Your task to perform on an android device: turn on the 24-hour format for clock Image 0: 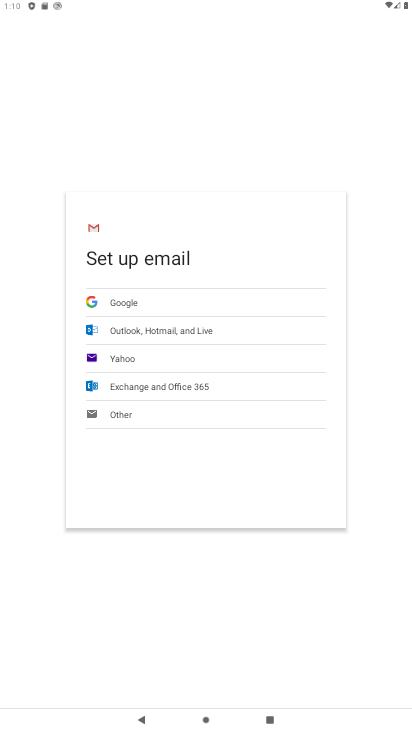
Step 0: press home button
Your task to perform on an android device: turn on the 24-hour format for clock Image 1: 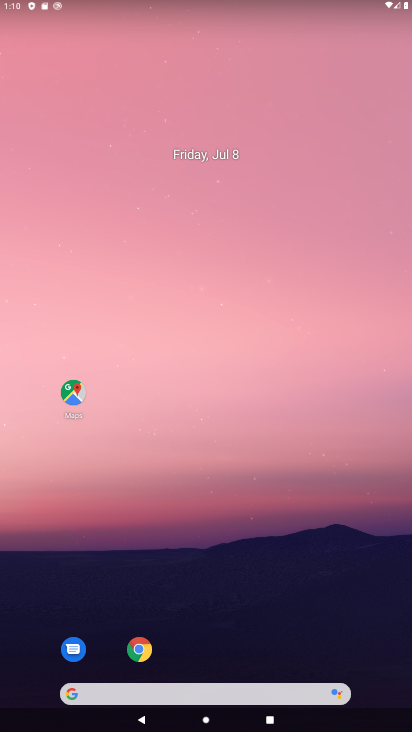
Step 1: drag from (301, 619) to (163, 106)
Your task to perform on an android device: turn on the 24-hour format for clock Image 2: 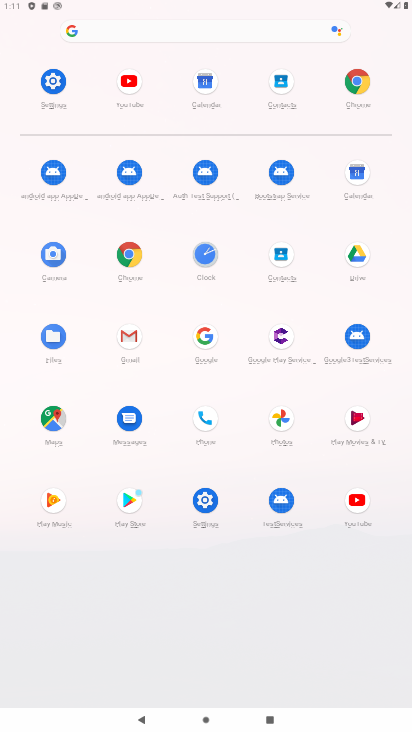
Step 2: click (205, 252)
Your task to perform on an android device: turn on the 24-hour format for clock Image 3: 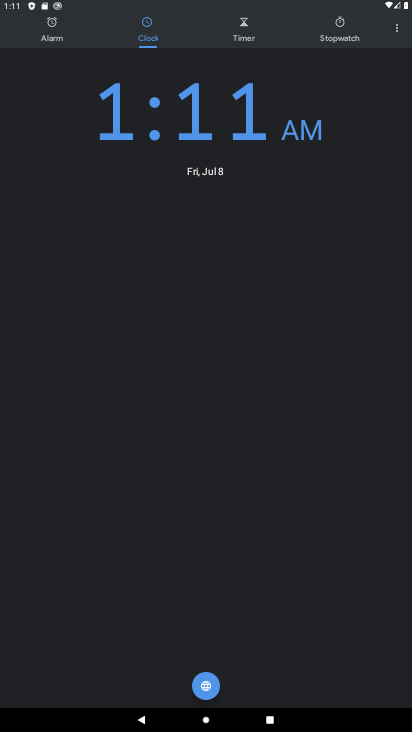
Step 3: click (401, 29)
Your task to perform on an android device: turn on the 24-hour format for clock Image 4: 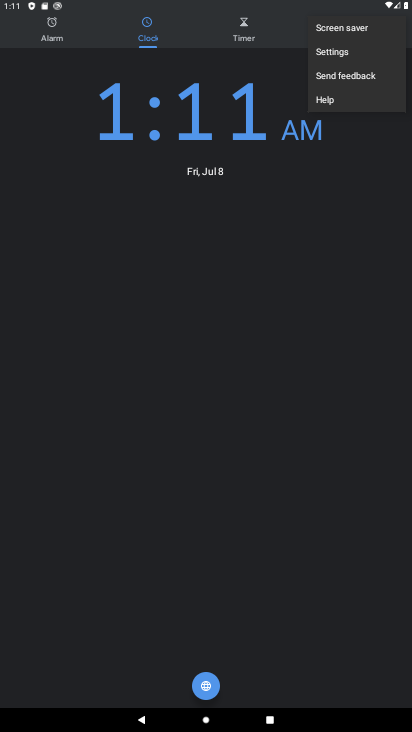
Step 4: click (336, 56)
Your task to perform on an android device: turn on the 24-hour format for clock Image 5: 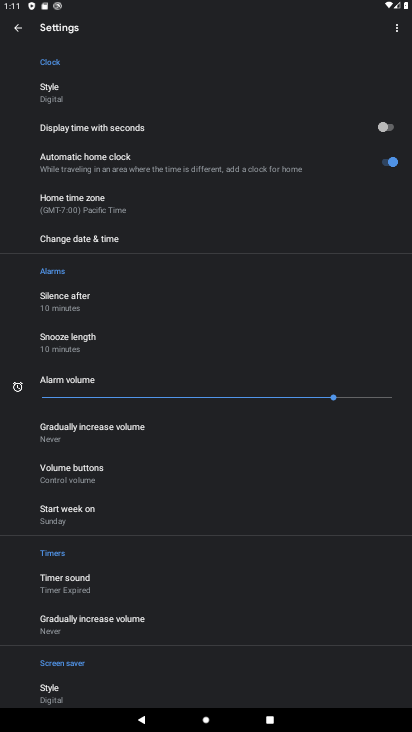
Step 5: click (102, 244)
Your task to perform on an android device: turn on the 24-hour format for clock Image 6: 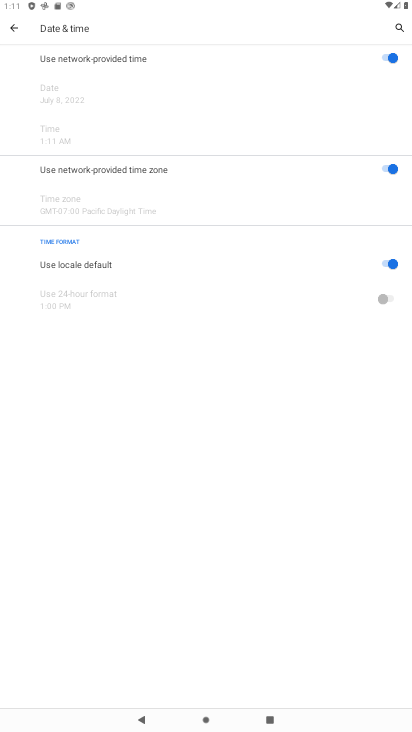
Step 6: click (386, 259)
Your task to perform on an android device: turn on the 24-hour format for clock Image 7: 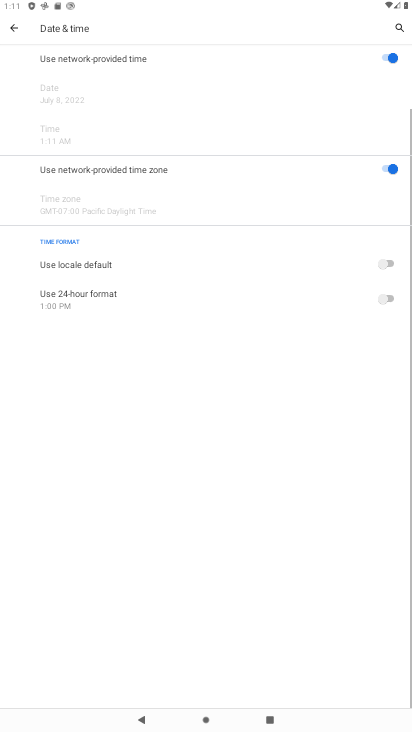
Step 7: click (387, 294)
Your task to perform on an android device: turn on the 24-hour format for clock Image 8: 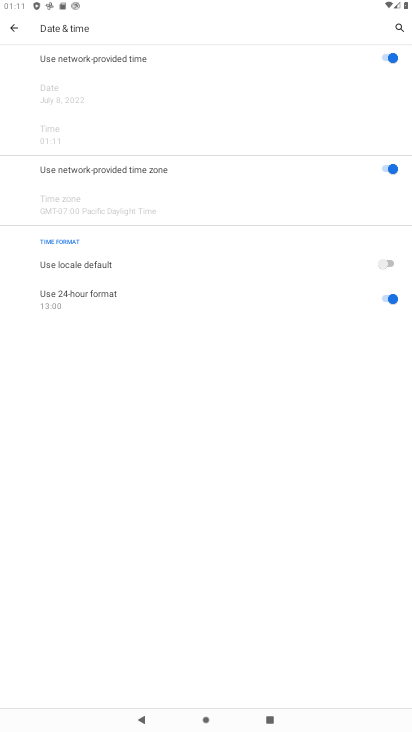
Step 8: task complete